Your task to perform on an android device: choose inbox layout in the gmail app Image 0: 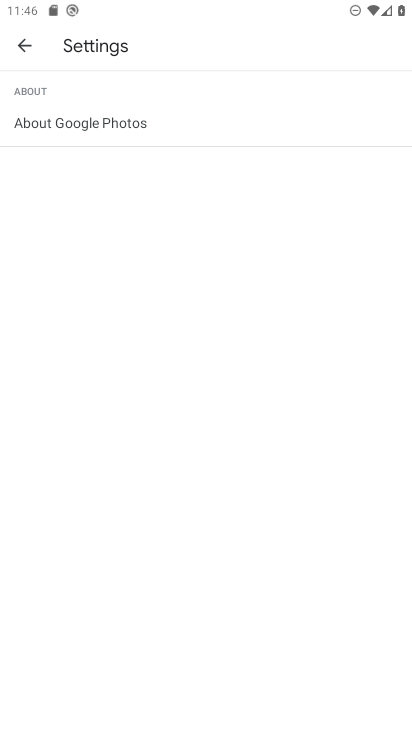
Step 0: press home button
Your task to perform on an android device: choose inbox layout in the gmail app Image 1: 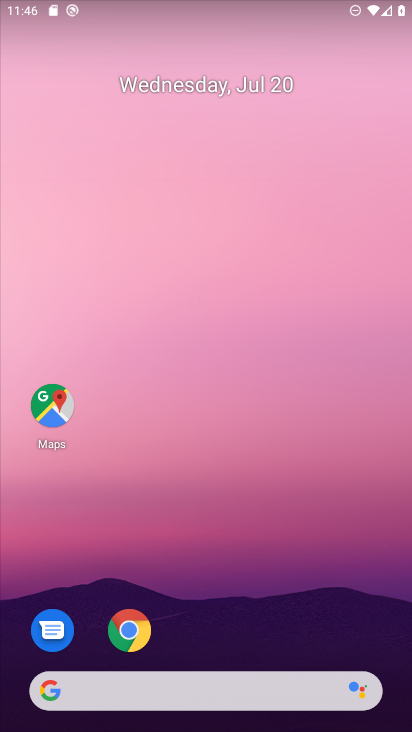
Step 1: drag from (208, 621) to (227, 0)
Your task to perform on an android device: choose inbox layout in the gmail app Image 2: 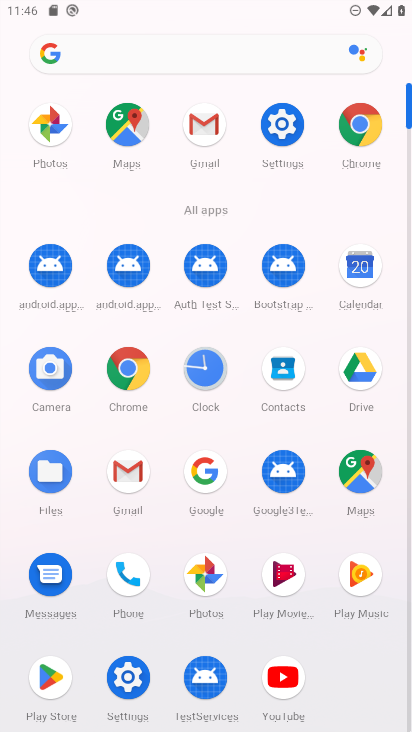
Step 2: click (116, 489)
Your task to perform on an android device: choose inbox layout in the gmail app Image 3: 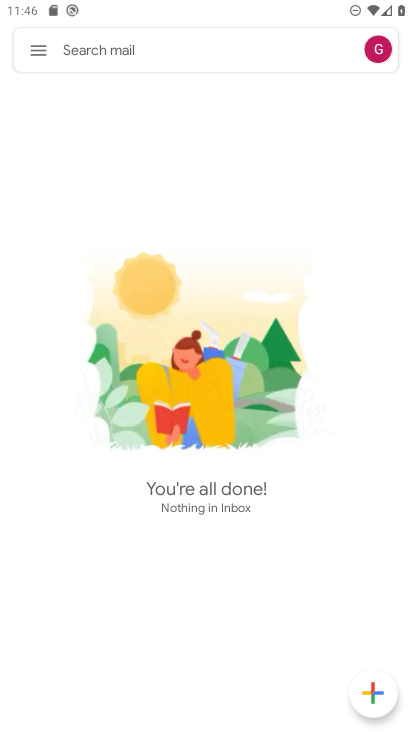
Step 3: click (49, 51)
Your task to perform on an android device: choose inbox layout in the gmail app Image 4: 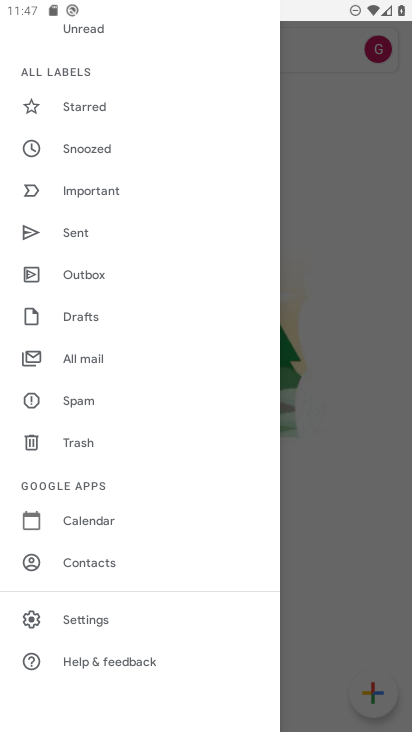
Step 4: click (96, 623)
Your task to perform on an android device: choose inbox layout in the gmail app Image 5: 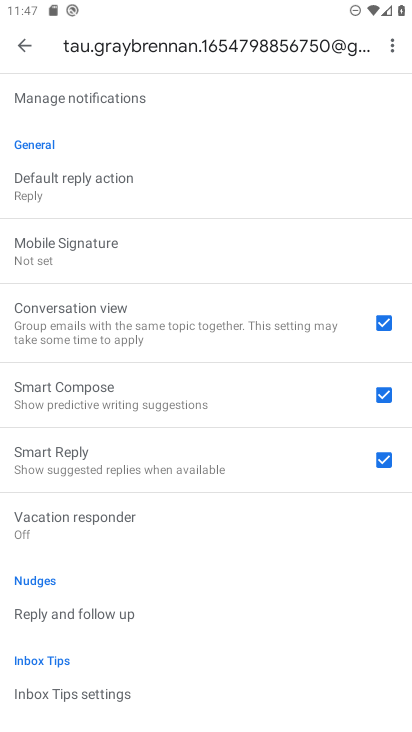
Step 5: drag from (87, 203) to (141, 730)
Your task to perform on an android device: choose inbox layout in the gmail app Image 6: 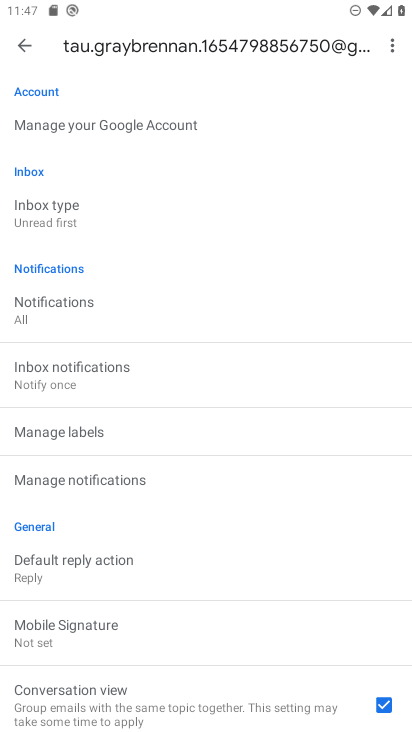
Step 6: click (74, 217)
Your task to perform on an android device: choose inbox layout in the gmail app Image 7: 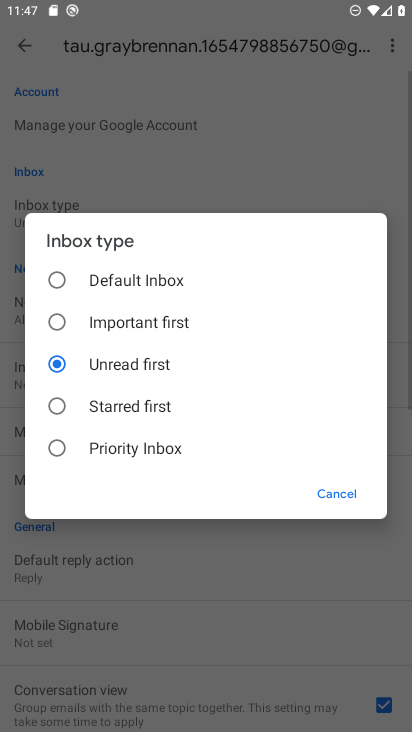
Step 7: click (111, 281)
Your task to perform on an android device: choose inbox layout in the gmail app Image 8: 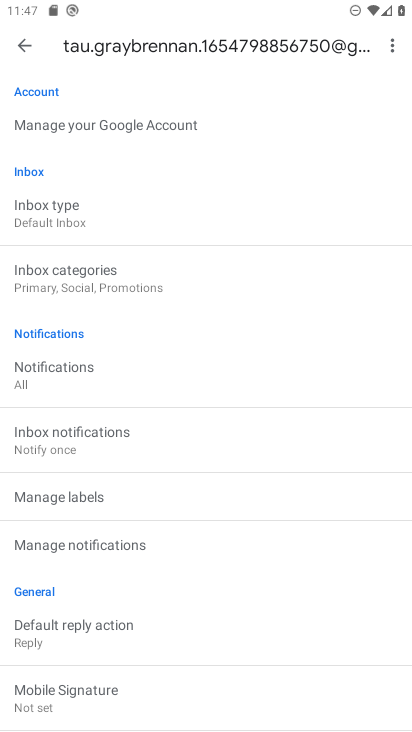
Step 8: task complete